Your task to perform on an android device: toggle airplane mode Image 0: 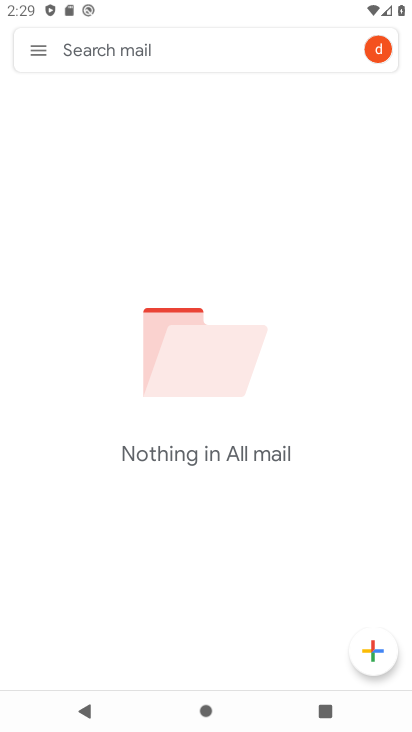
Step 0: press home button
Your task to perform on an android device: toggle airplane mode Image 1: 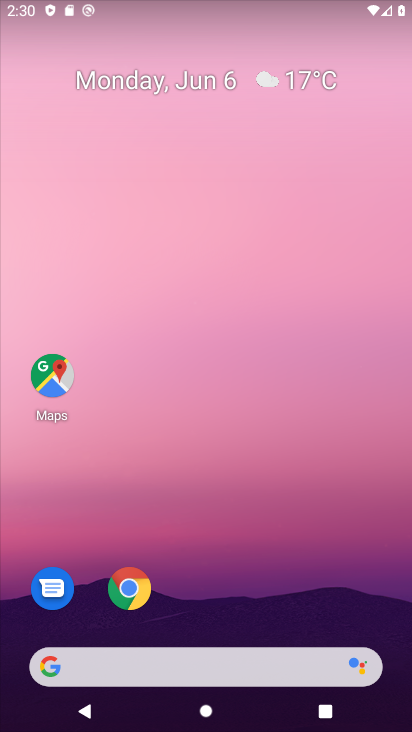
Step 1: drag from (204, 670) to (289, 178)
Your task to perform on an android device: toggle airplane mode Image 2: 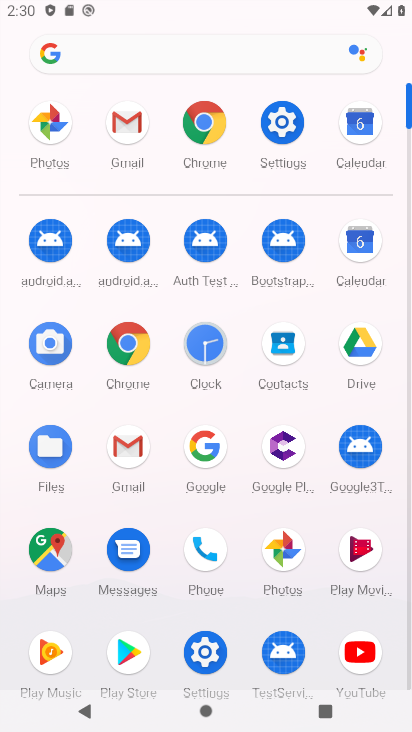
Step 2: click (281, 113)
Your task to perform on an android device: toggle airplane mode Image 3: 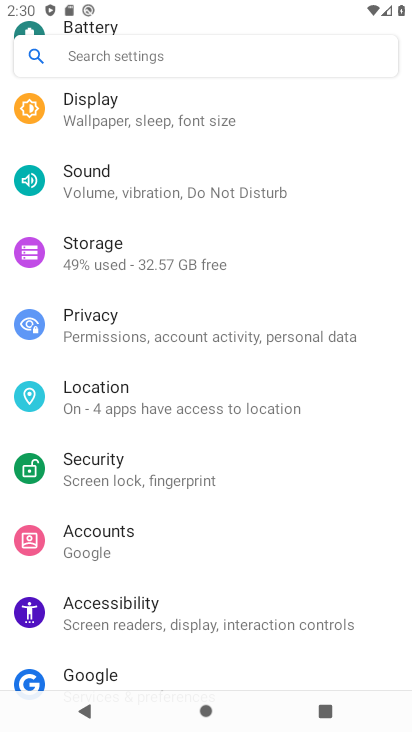
Step 3: drag from (219, 115) to (220, 606)
Your task to perform on an android device: toggle airplane mode Image 4: 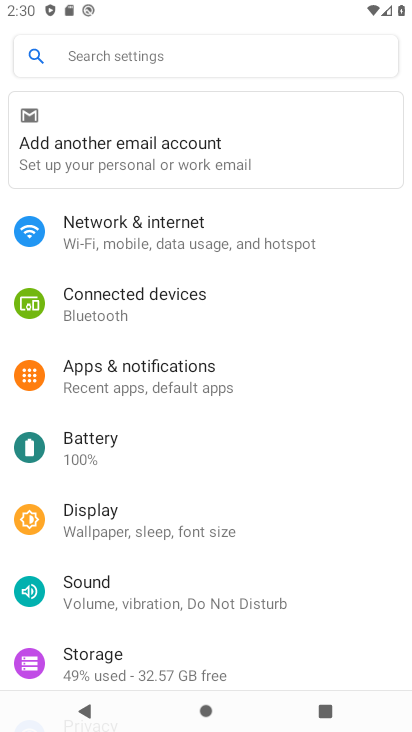
Step 4: click (195, 227)
Your task to perform on an android device: toggle airplane mode Image 5: 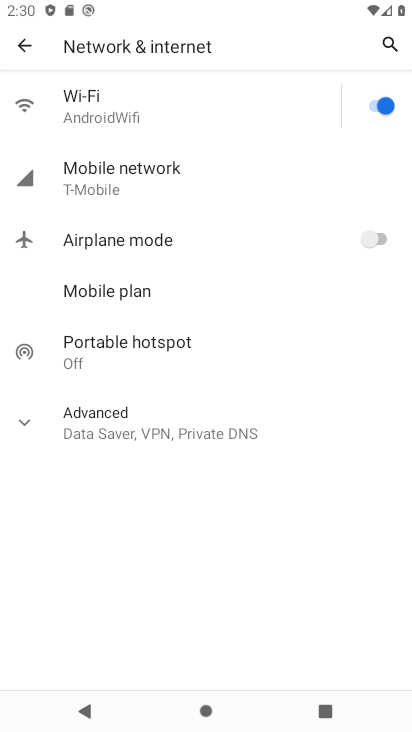
Step 5: click (367, 237)
Your task to perform on an android device: toggle airplane mode Image 6: 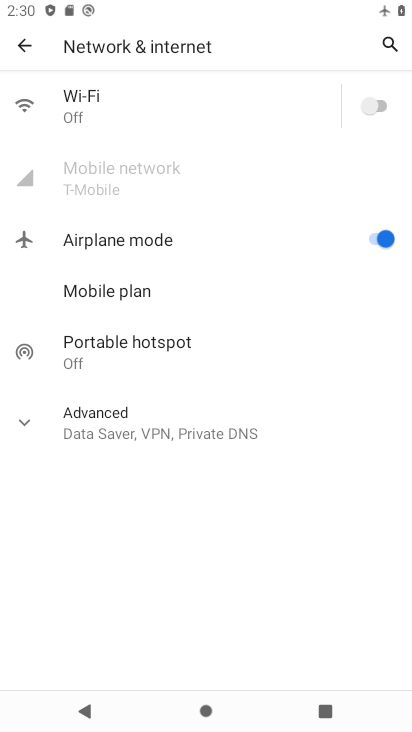
Step 6: task complete